Your task to perform on an android device: Is it going to rain today? Image 0: 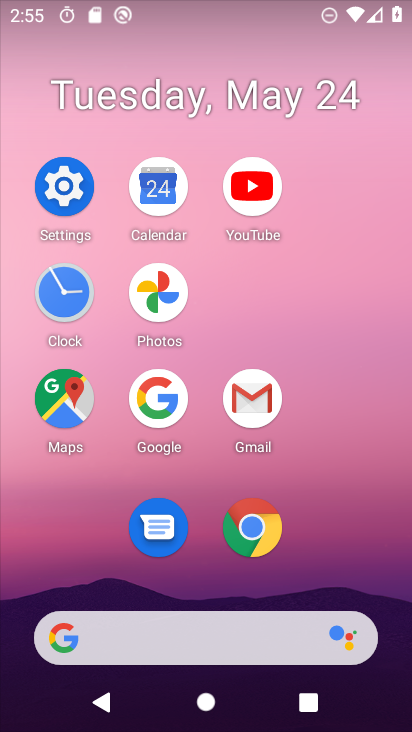
Step 0: click (165, 397)
Your task to perform on an android device: Is it going to rain today? Image 1: 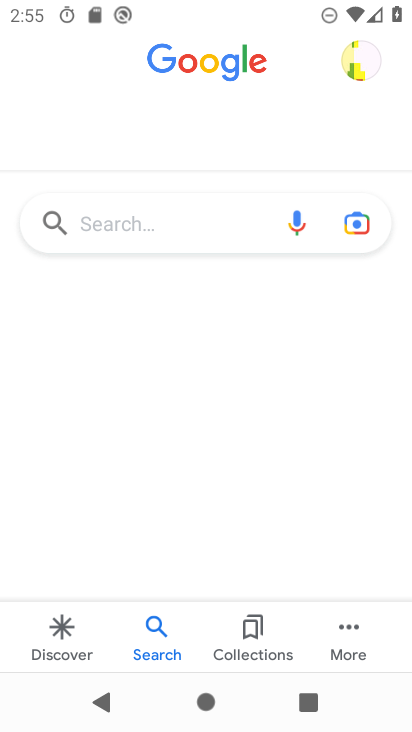
Step 1: click (177, 235)
Your task to perform on an android device: Is it going to rain today? Image 2: 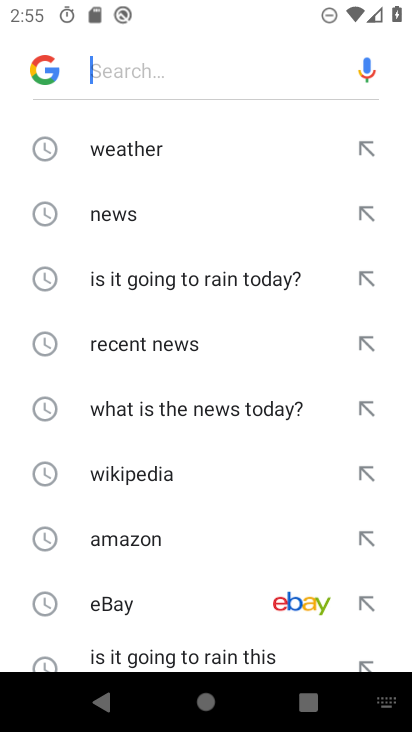
Step 2: click (141, 149)
Your task to perform on an android device: Is it going to rain today? Image 3: 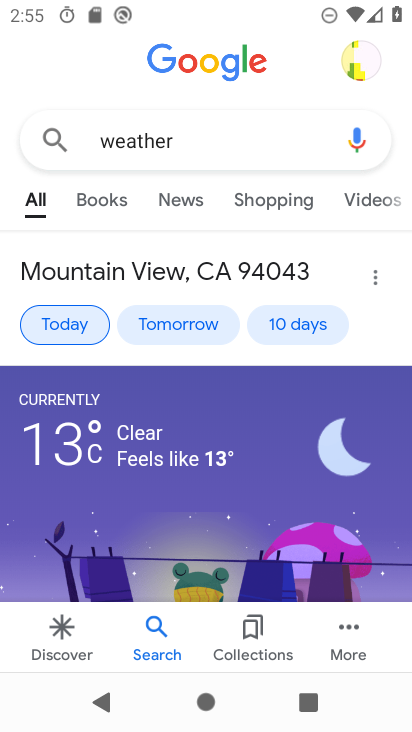
Step 3: task complete